Your task to perform on an android device: add a contact in the contacts app Image 0: 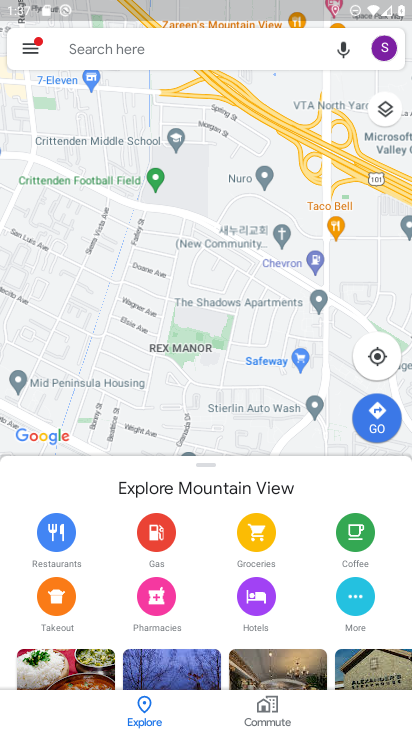
Step 0: press home button
Your task to perform on an android device: add a contact in the contacts app Image 1: 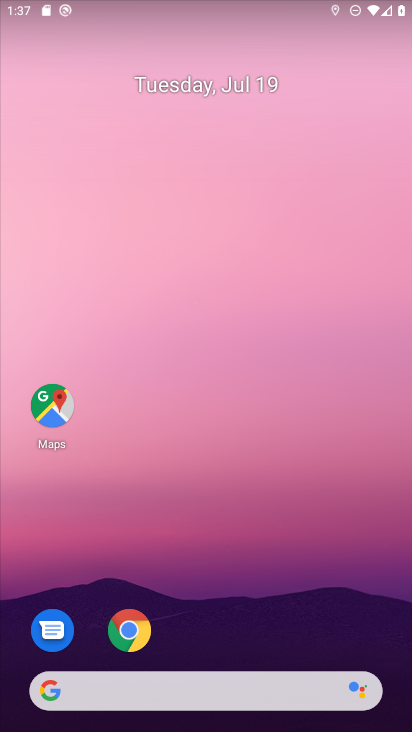
Step 1: drag from (152, 705) to (195, 100)
Your task to perform on an android device: add a contact in the contacts app Image 2: 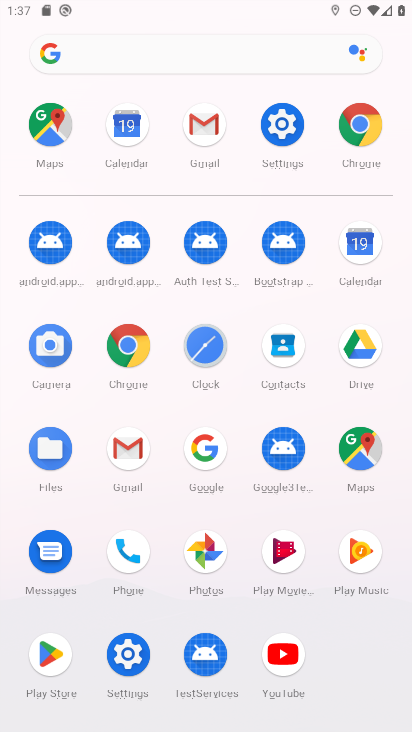
Step 2: click (287, 350)
Your task to perform on an android device: add a contact in the contacts app Image 3: 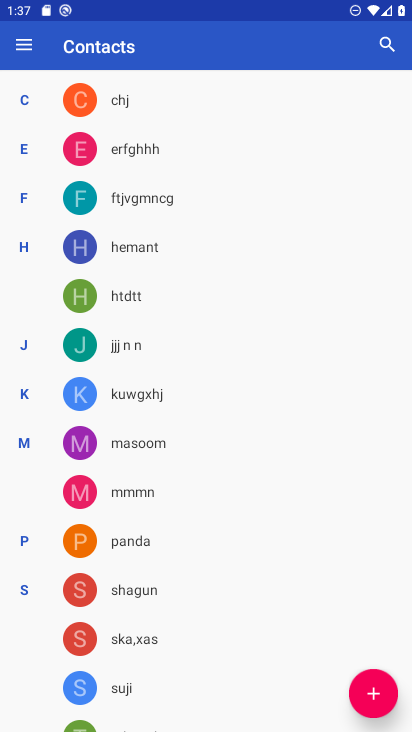
Step 3: click (374, 689)
Your task to perform on an android device: add a contact in the contacts app Image 4: 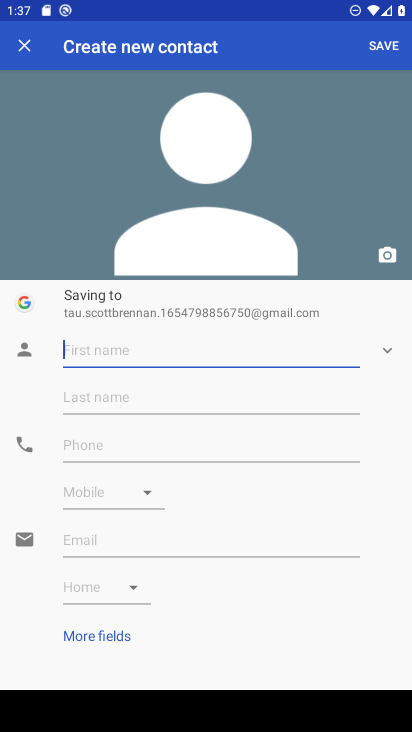
Step 4: type "nrythfhgjggkk"
Your task to perform on an android device: add a contact in the contacts app Image 5: 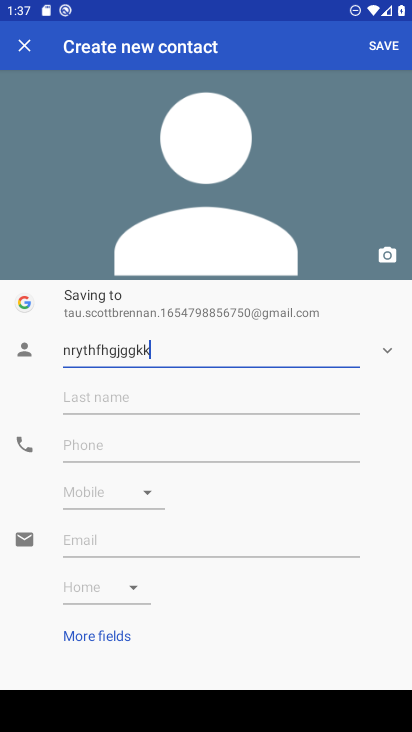
Step 5: click (111, 435)
Your task to perform on an android device: add a contact in the contacts app Image 6: 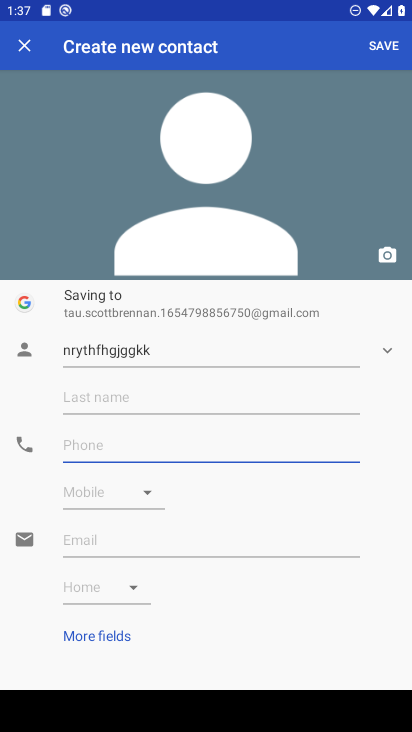
Step 6: type "294876577866"
Your task to perform on an android device: add a contact in the contacts app Image 7: 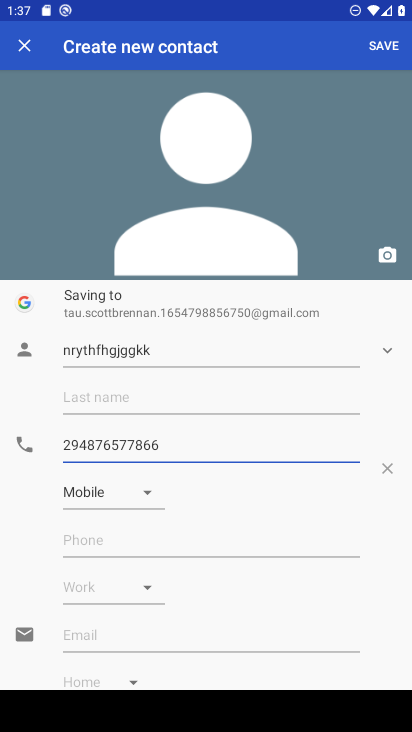
Step 7: click (382, 44)
Your task to perform on an android device: add a contact in the contacts app Image 8: 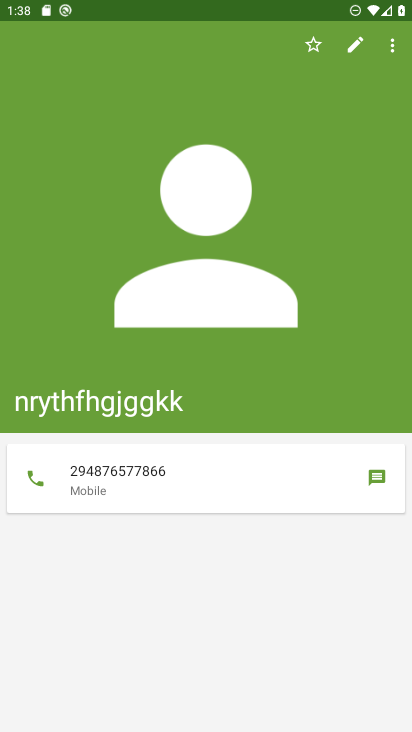
Step 8: task complete